Your task to perform on an android device: turn smart compose on in the gmail app Image 0: 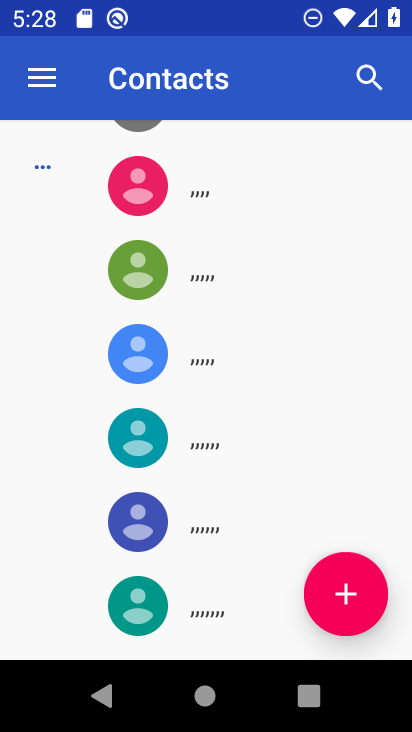
Step 0: press home button
Your task to perform on an android device: turn smart compose on in the gmail app Image 1: 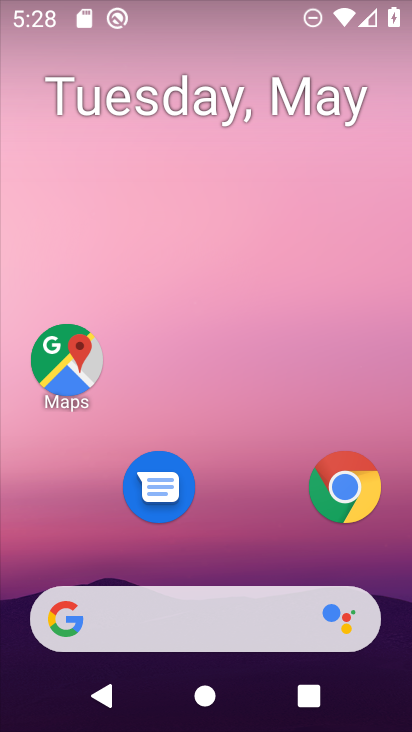
Step 1: drag from (264, 531) to (258, 161)
Your task to perform on an android device: turn smart compose on in the gmail app Image 2: 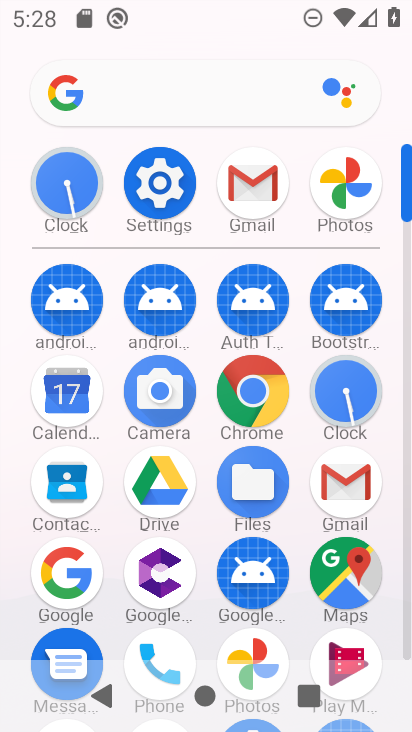
Step 2: click (330, 482)
Your task to perform on an android device: turn smart compose on in the gmail app Image 3: 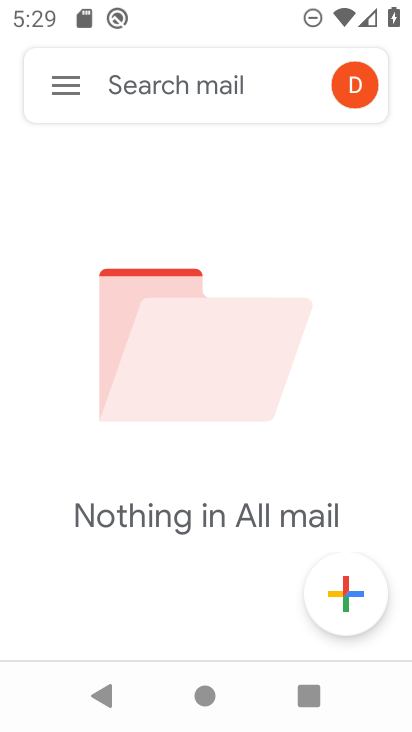
Step 3: click (50, 93)
Your task to perform on an android device: turn smart compose on in the gmail app Image 4: 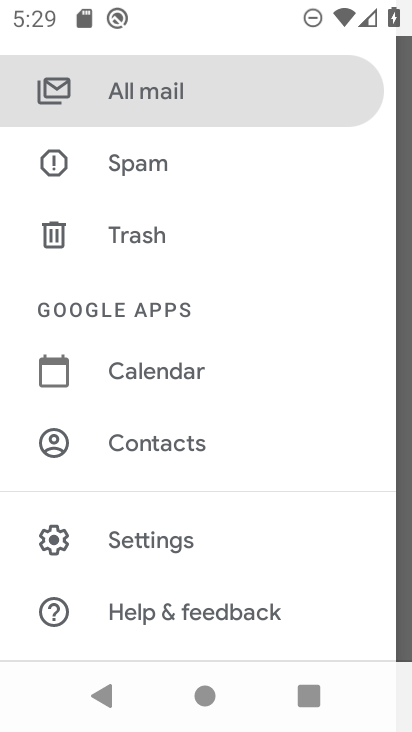
Step 4: click (119, 514)
Your task to perform on an android device: turn smart compose on in the gmail app Image 5: 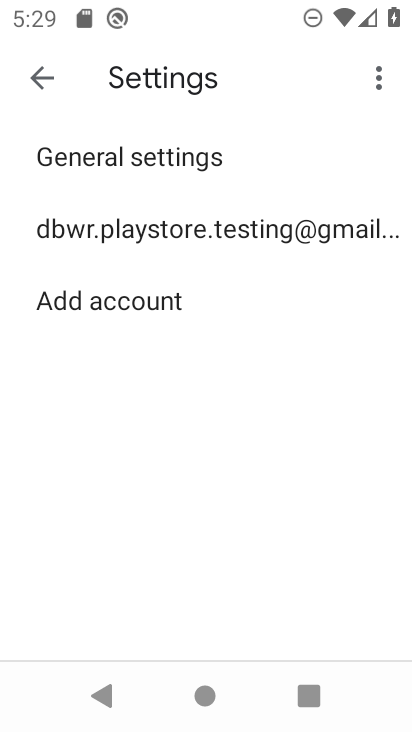
Step 5: click (66, 215)
Your task to perform on an android device: turn smart compose on in the gmail app Image 6: 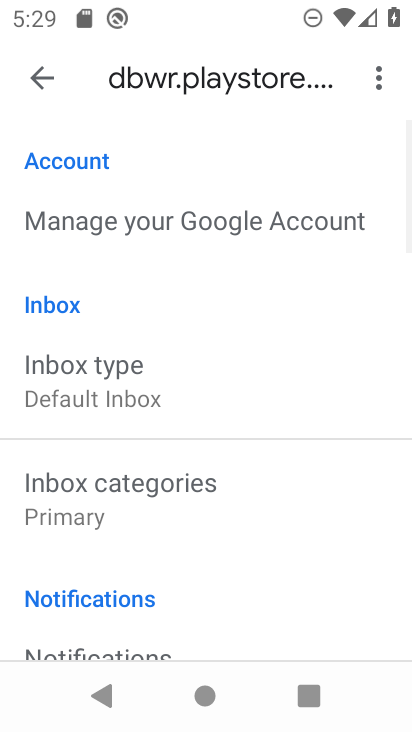
Step 6: task complete